Your task to perform on an android device: toggle priority inbox in the gmail app Image 0: 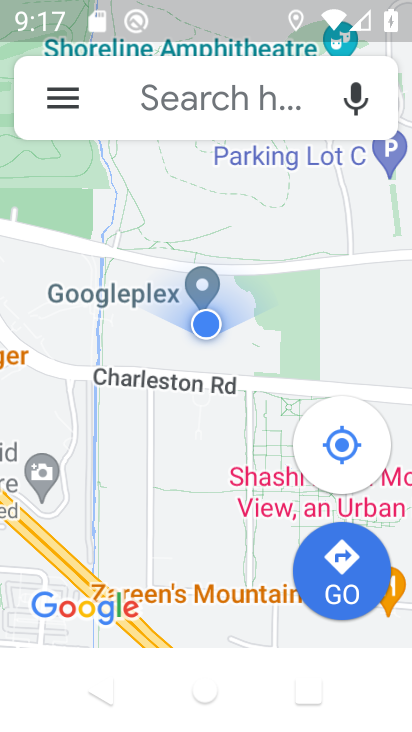
Step 0: press home button
Your task to perform on an android device: toggle priority inbox in the gmail app Image 1: 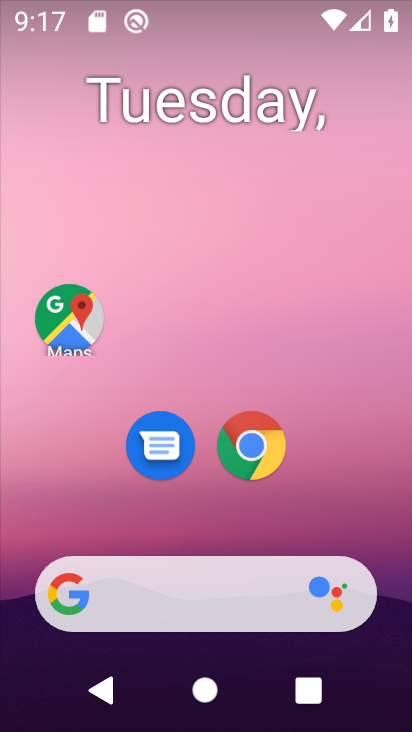
Step 1: drag from (202, 507) to (253, 144)
Your task to perform on an android device: toggle priority inbox in the gmail app Image 2: 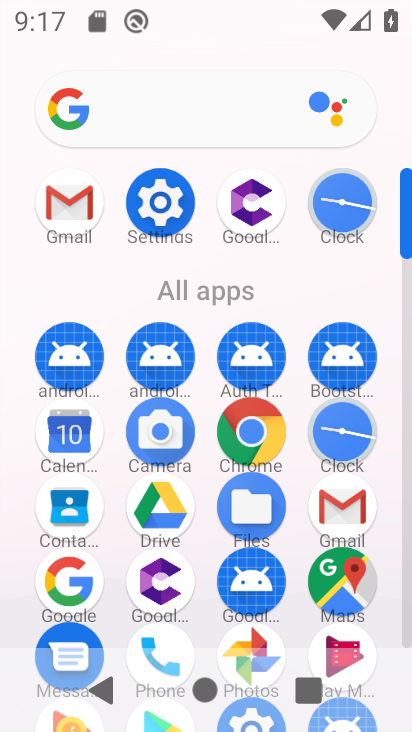
Step 2: click (63, 220)
Your task to perform on an android device: toggle priority inbox in the gmail app Image 3: 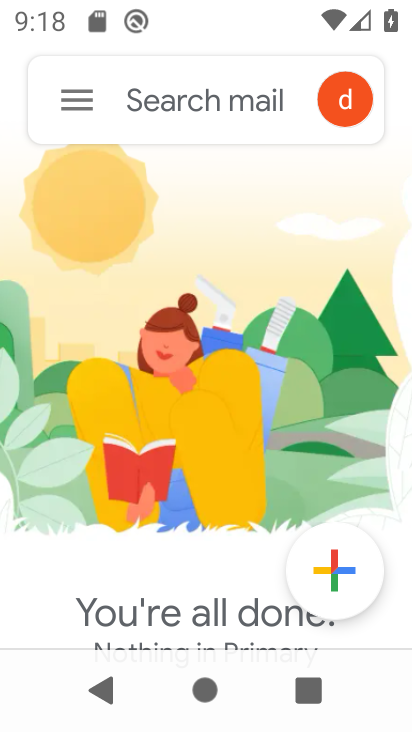
Step 3: click (71, 80)
Your task to perform on an android device: toggle priority inbox in the gmail app Image 4: 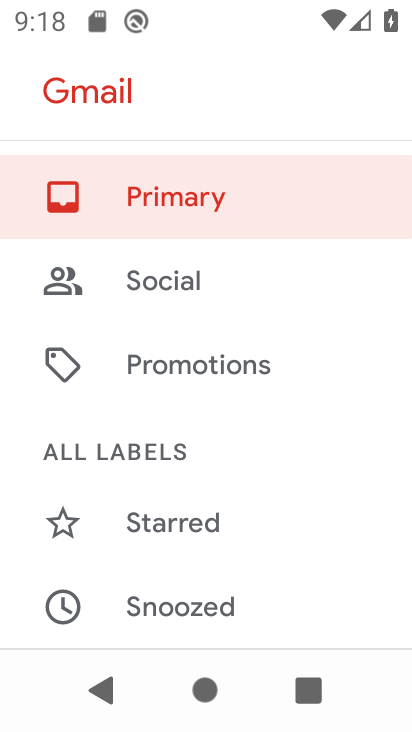
Step 4: drag from (185, 539) to (239, 7)
Your task to perform on an android device: toggle priority inbox in the gmail app Image 5: 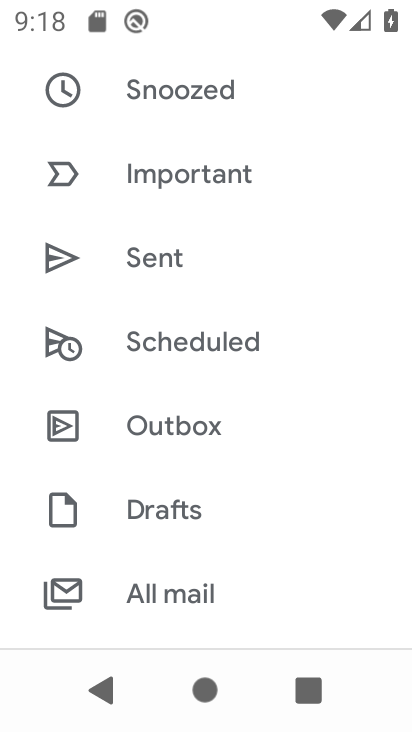
Step 5: drag from (225, 589) to (283, 98)
Your task to perform on an android device: toggle priority inbox in the gmail app Image 6: 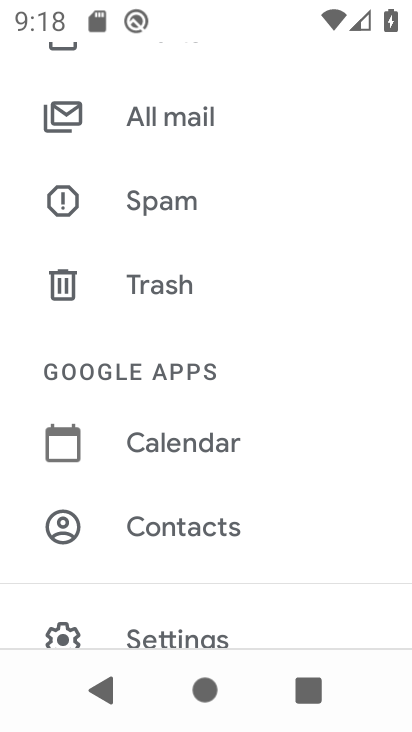
Step 6: click (190, 635)
Your task to perform on an android device: toggle priority inbox in the gmail app Image 7: 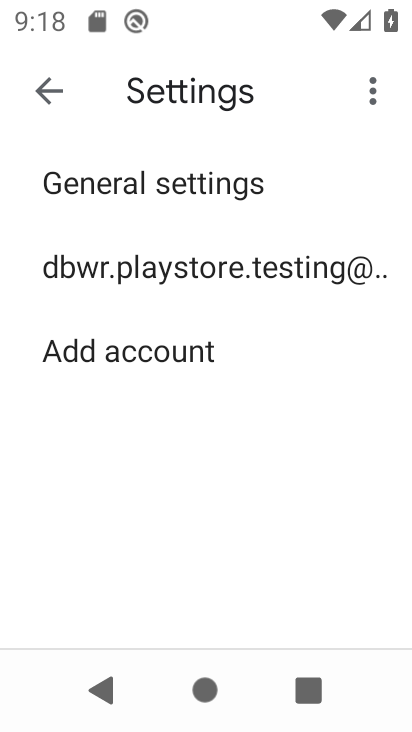
Step 7: click (199, 253)
Your task to perform on an android device: toggle priority inbox in the gmail app Image 8: 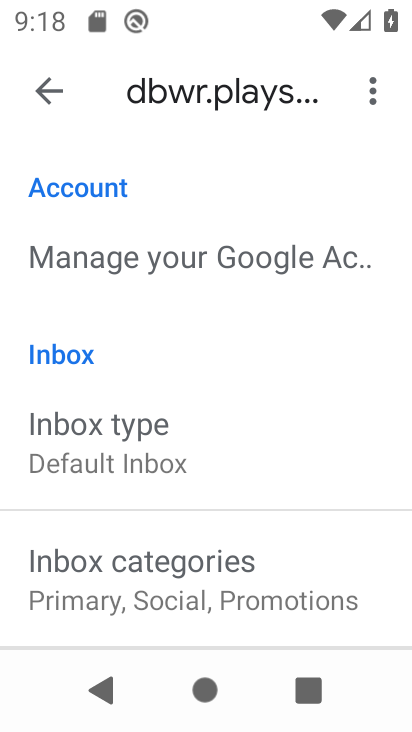
Step 8: click (181, 441)
Your task to perform on an android device: toggle priority inbox in the gmail app Image 9: 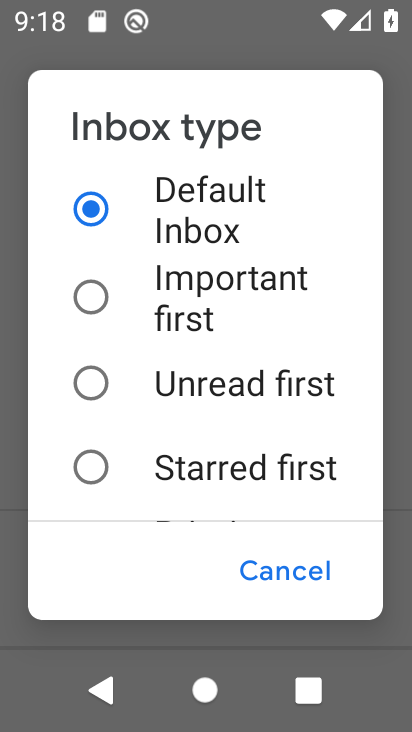
Step 9: drag from (153, 413) to (219, 94)
Your task to perform on an android device: toggle priority inbox in the gmail app Image 10: 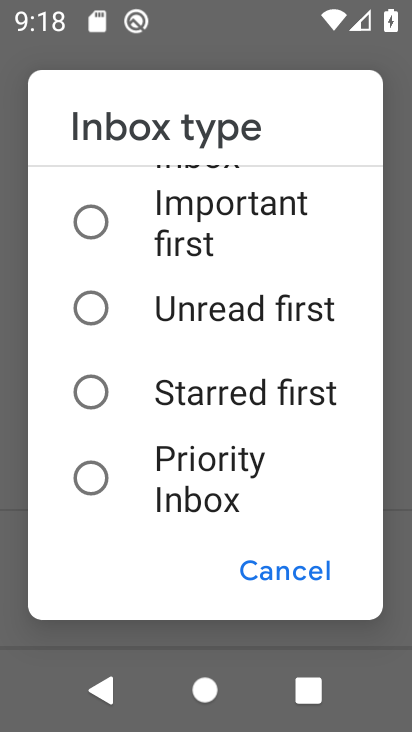
Step 10: click (94, 486)
Your task to perform on an android device: toggle priority inbox in the gmail app Image 11: 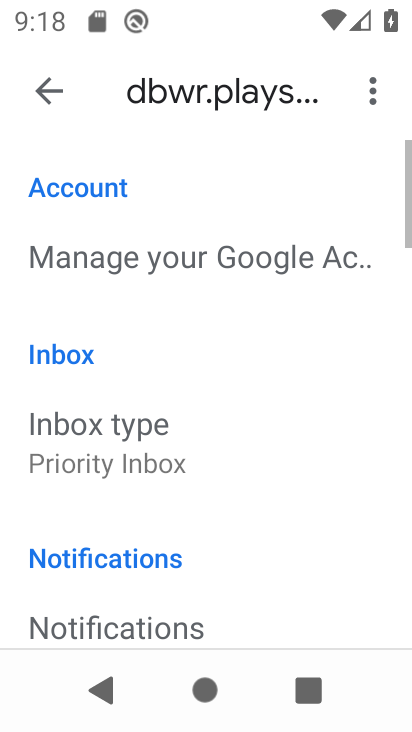
Step 11: task complete